Your task to perform on an android device: Open the web browser Image 0: 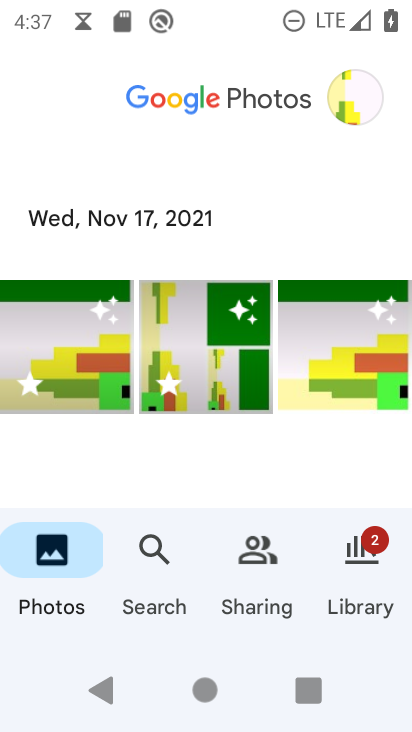
Step 0: press home button
Your task to perform on an android device: Open the web browser Image 1: 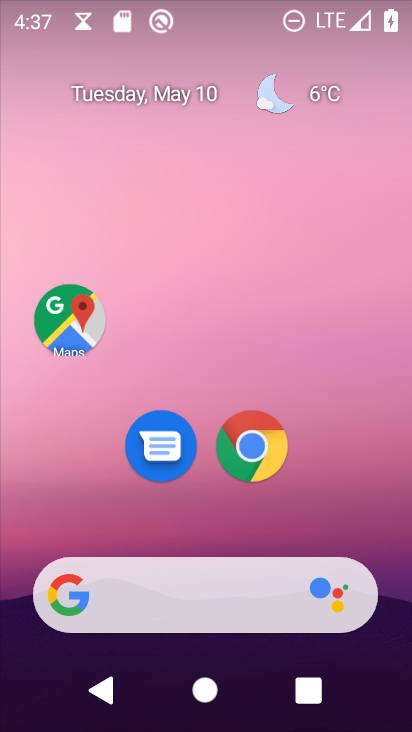
Step 1: click (263, 461)
Your task to perform on an android device: Open the web browser Image 2: 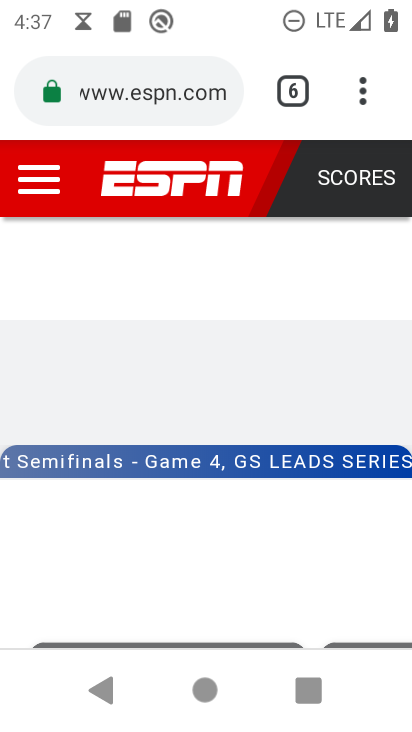
Step 2: task complete